Your task to perform on an android device: change your default location settings in chrome Image 0: 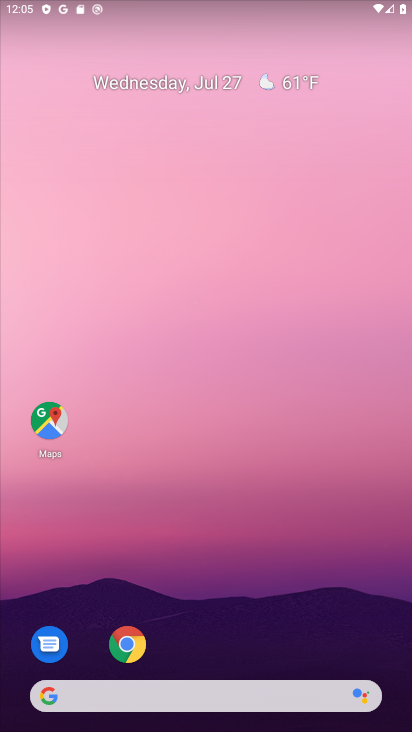
Step 0: drag from (221, 628) to (198, 20)
Your task to perform on an android device: change your default location settings in chrome Image 1: 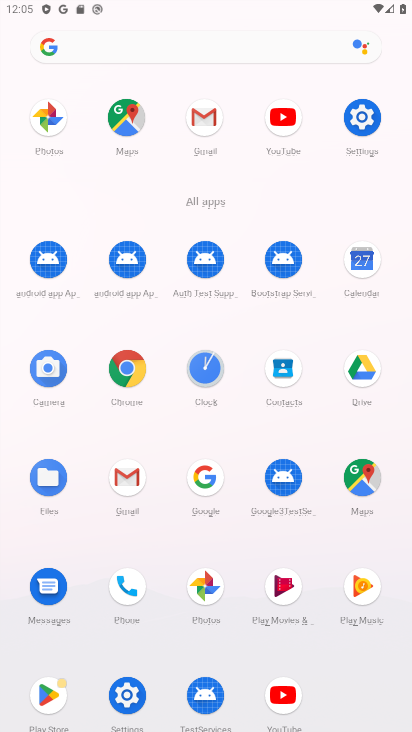
Step 1: click (130, 364)
Your task to perform on an android device: change your default location settings in chrome Image 2: 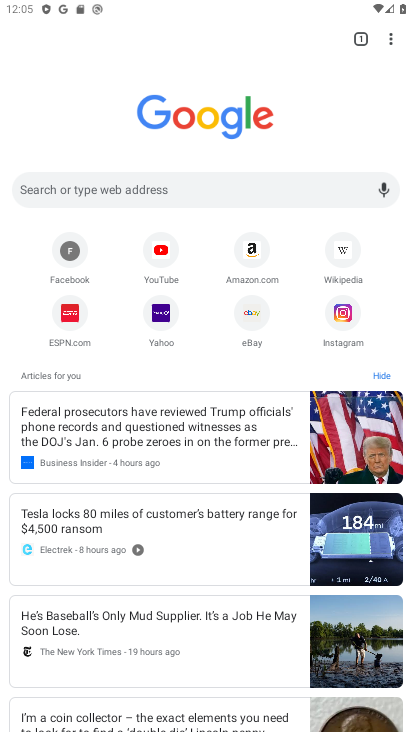
Step 2: drag from (387, 39) to (269, 379)
Your task to perform on an android device: change your default location settings in chrome Image 3: 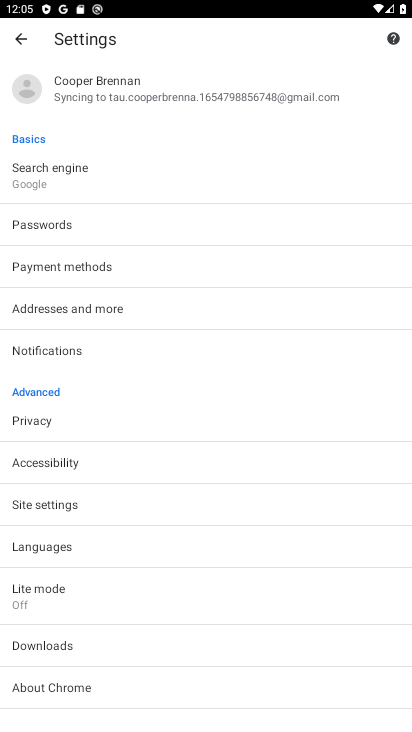
Step 3: click (101, 498)
Your task to perform on an android device: change your default location settings in chrome Image 4: 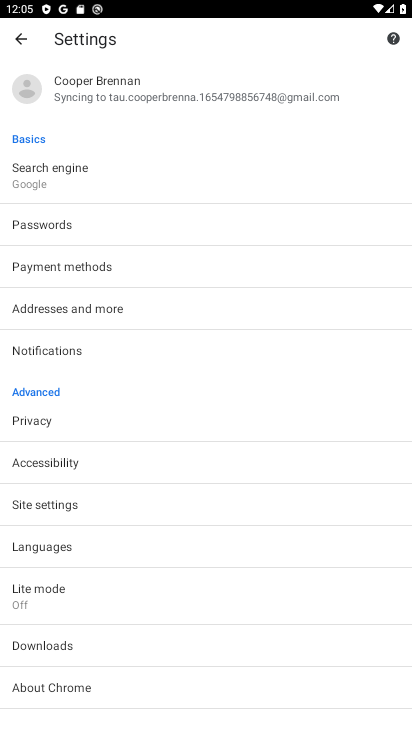
Step 4: click (101, 498)
Your task to perform on an android device: change your default location settings in chrome Image 5: 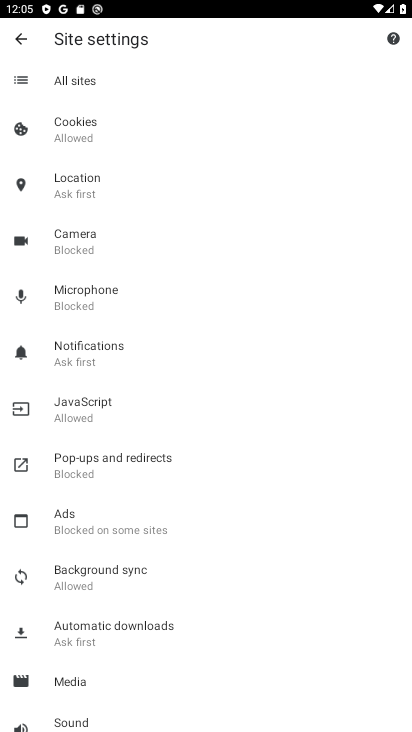
Step 5: click (82, 182)
Your task to perform on an android device: change your default location settings in chrome Image 6: 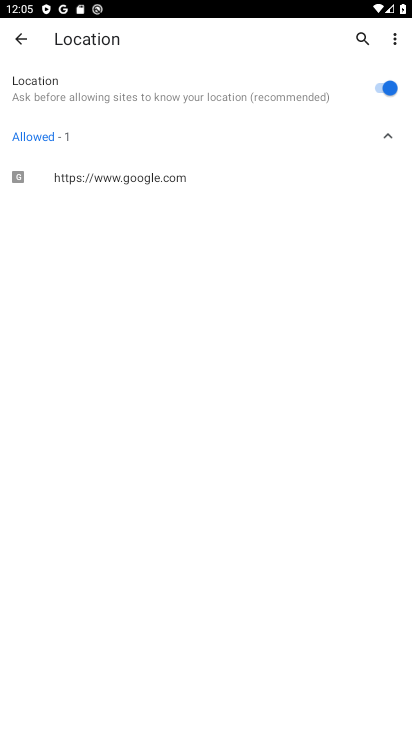
Step 6: click (376, 89)
Your task to perform on an android device: change your default location settings in chrome Image 7: 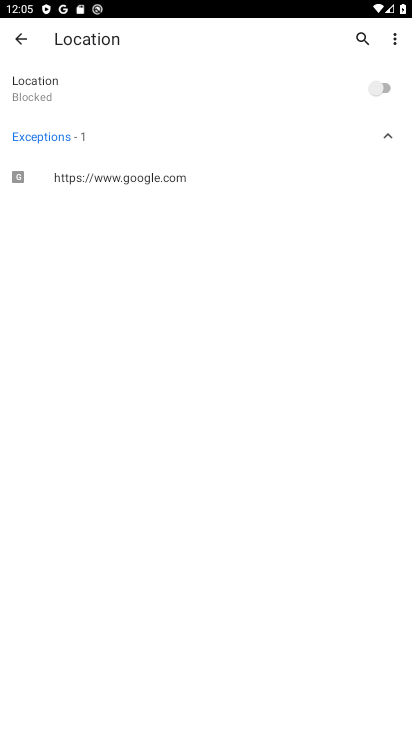
Step 7: task complete